Your task to perform on an android device: What is the recent news? Image 0: 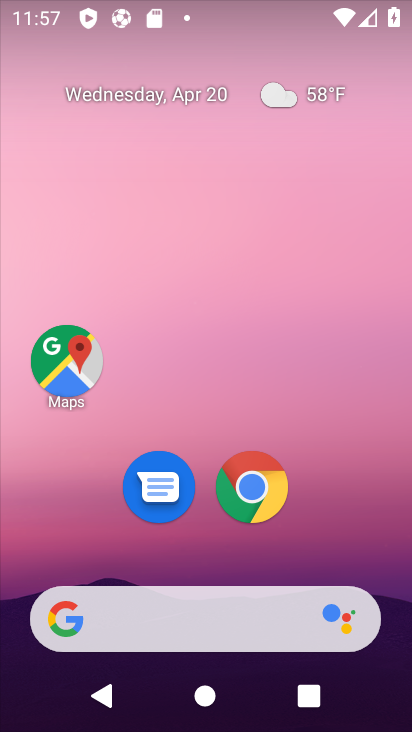
Step 0: drag from (16, 237) to (410, 345)
Your task to perform on an android device: What is the recent news? Image 1: 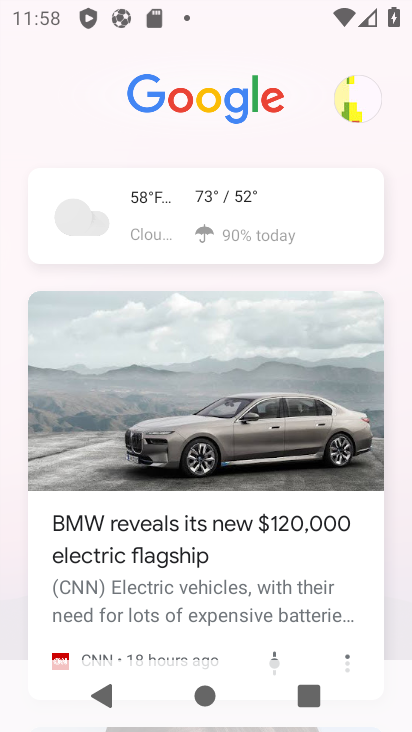
Step 1: task complete